Your task to perform on an android device: uninstall "Microsoft Authenticator" Image 0: 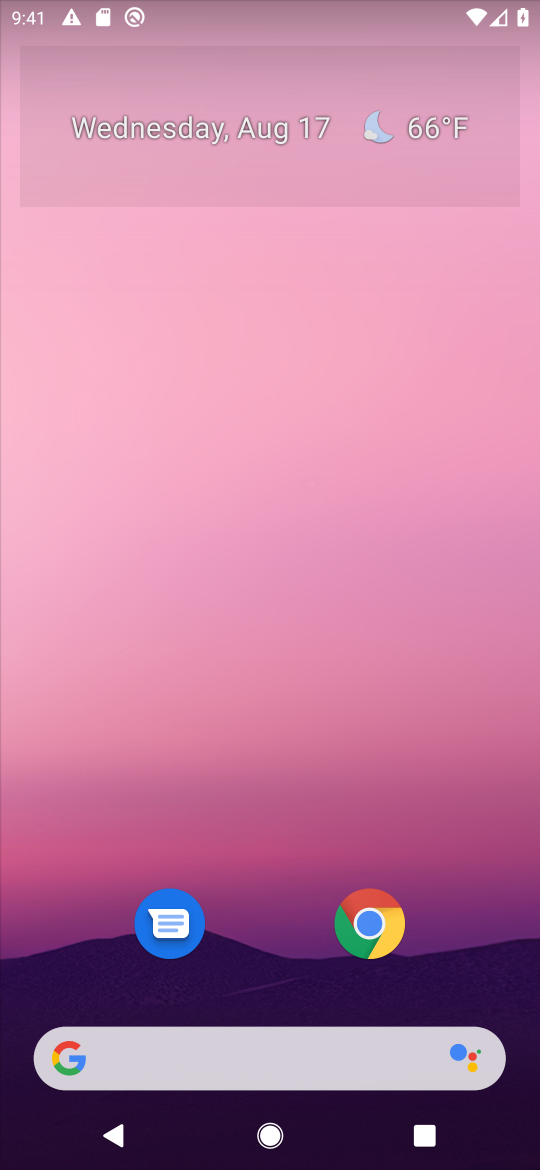
Step 0: drag from (471, 895) to (399, 173)
Your task to perform on an android device: uninstall "Microsoft Authenticator" Image 1: 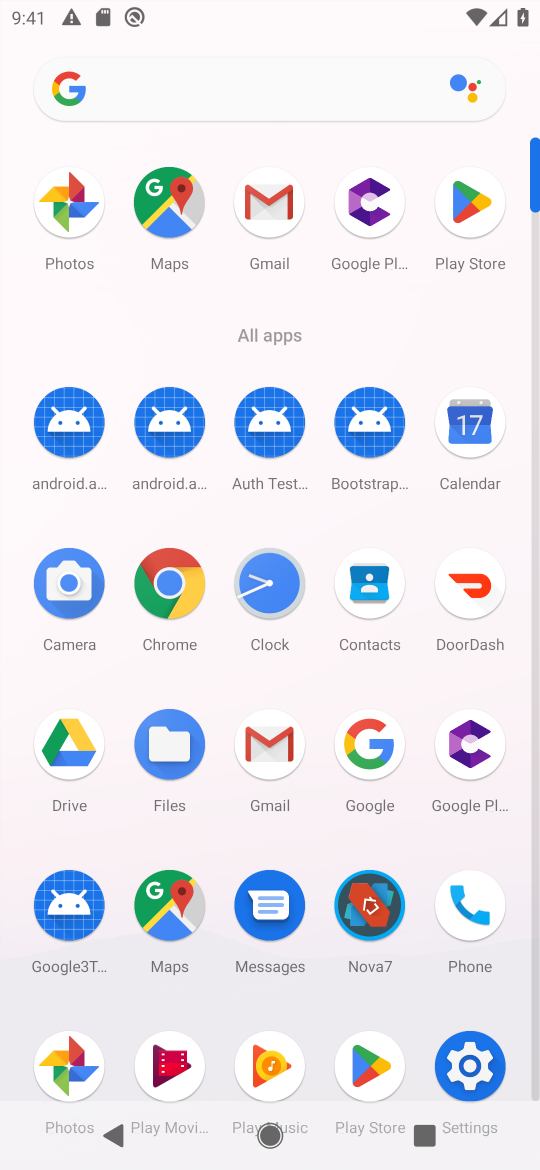
Step 1: click (470, 228)
Your task to perform on an android device: uninstall "Microsoft Authenticator" Image 2: 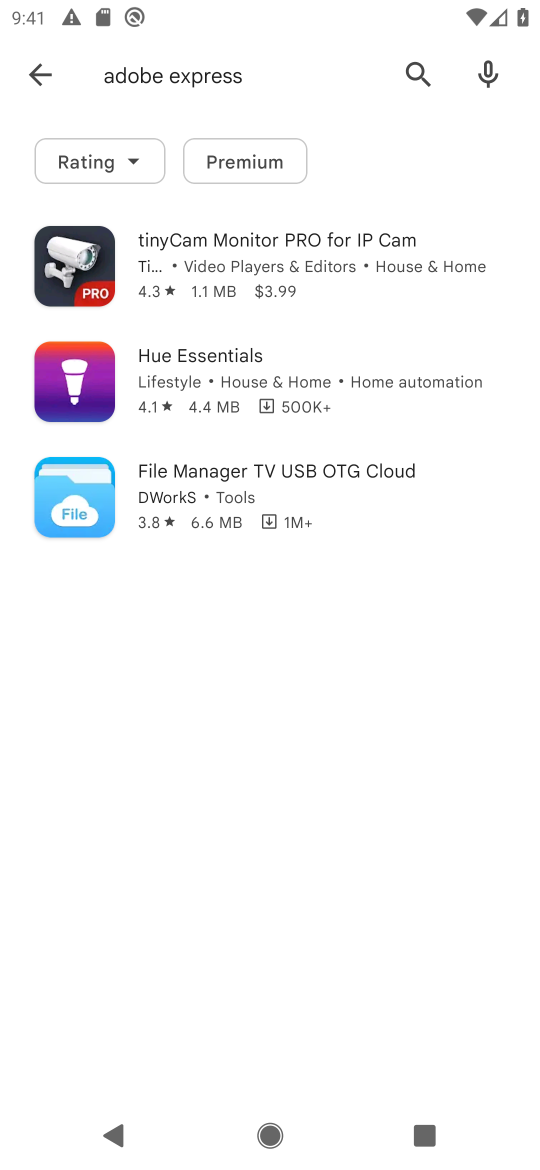
Step 2: click (42, 68)
Your task to perform on an android device: uninstall "Microsoft Authenticator" Image 3: 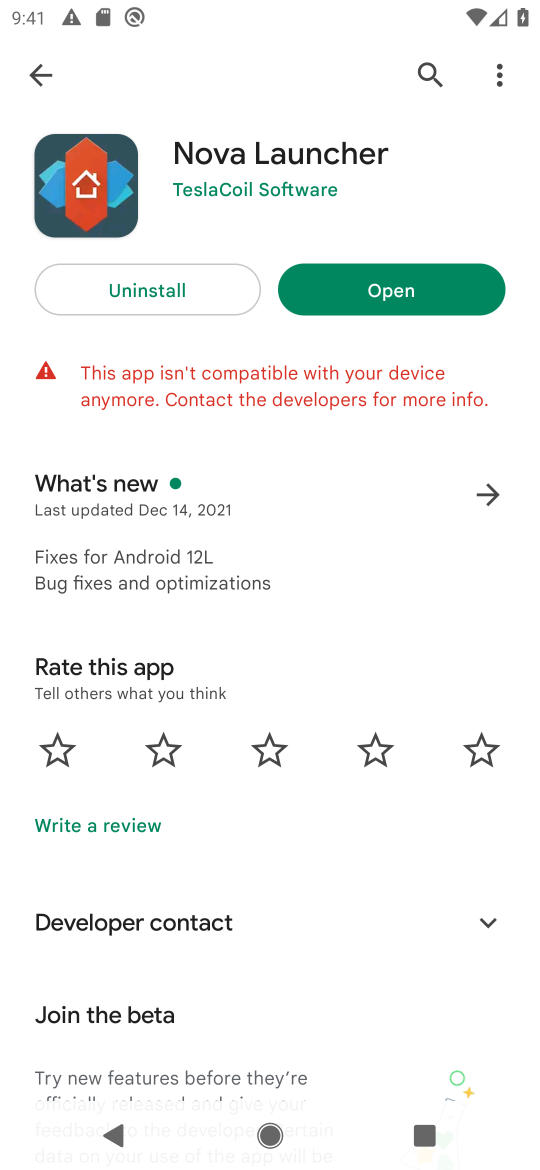
Step 3: click (45, 70)
Your task to perform on an android device: uninstall "Microsoft Authenticator" Image 4: 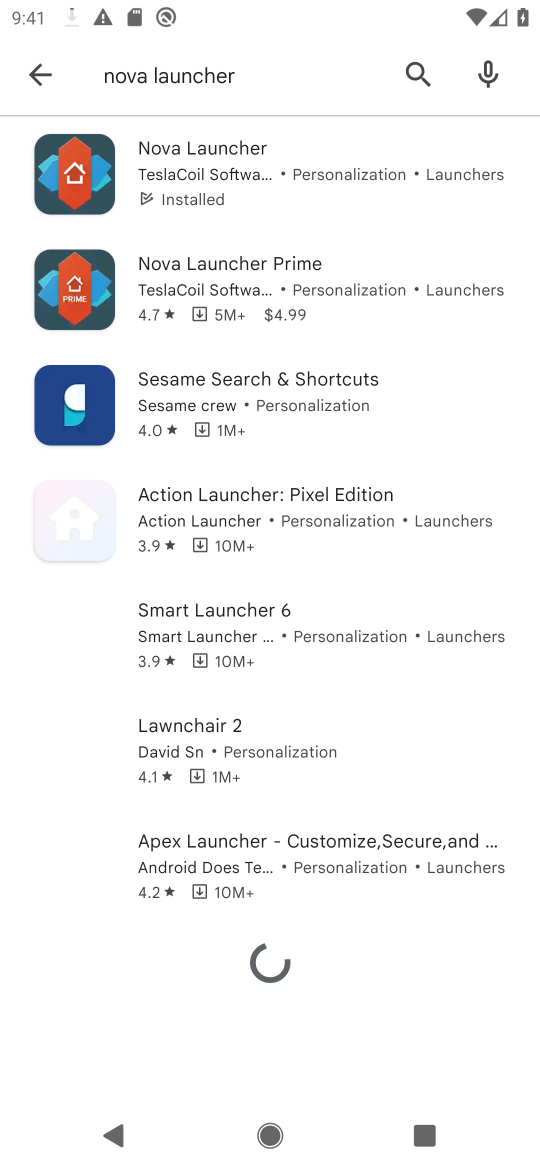
Step 4: click (45, 70)
Your task to perform on an android device: uninstall "Microsoft Authenticator" Image 5: 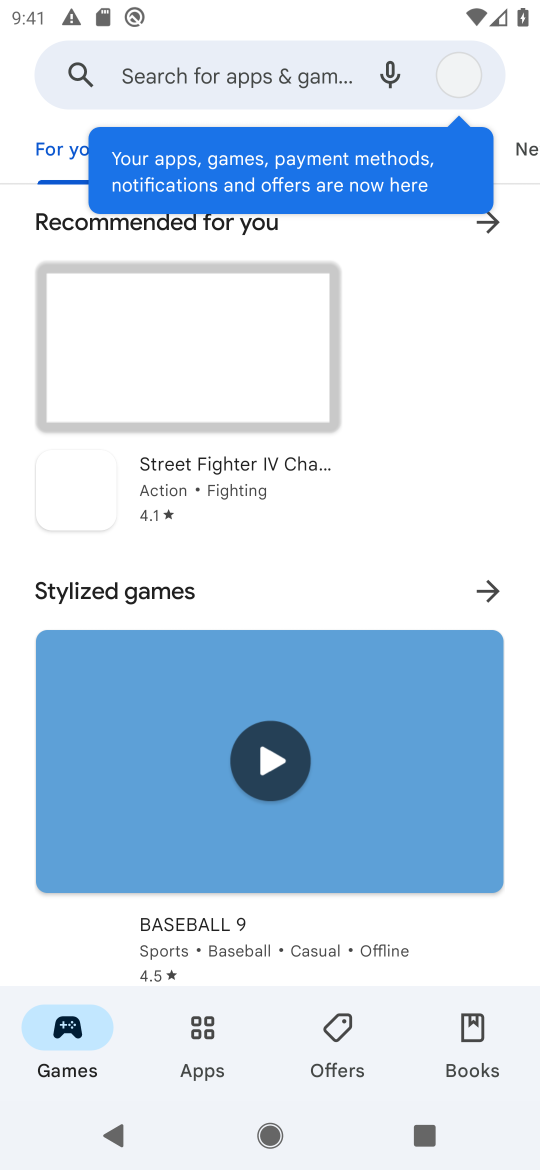
Step 5: click (260, 88)
Your task to perform on an android device: uninstall "Microsoft Authenticator" Image 6: 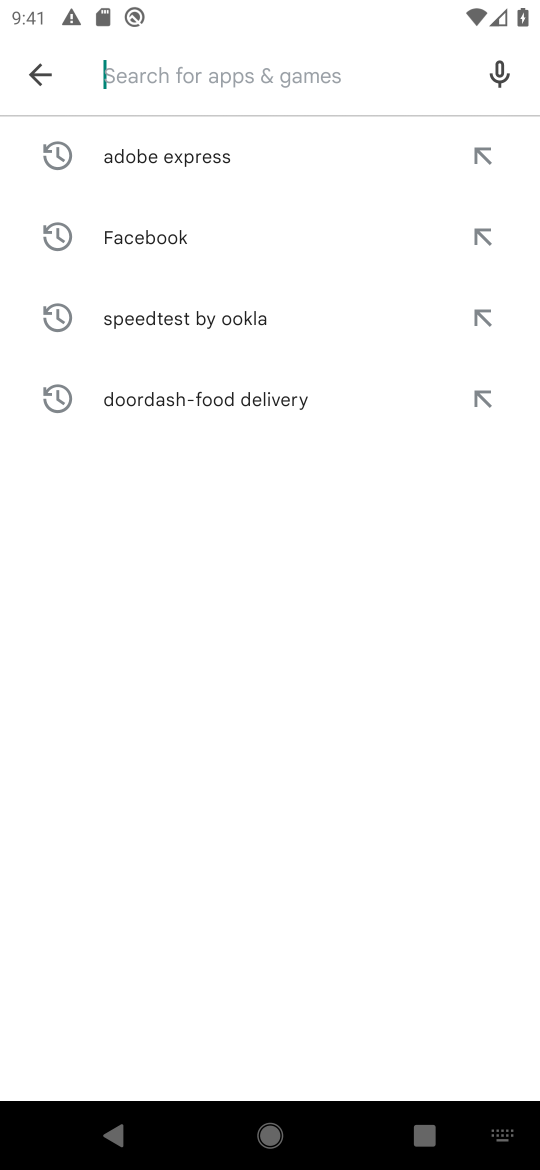
Step 6: type "microsoft authenticator"
Your task to perform on an android device: uninstall "Microsoft Authenticator" Image 7: 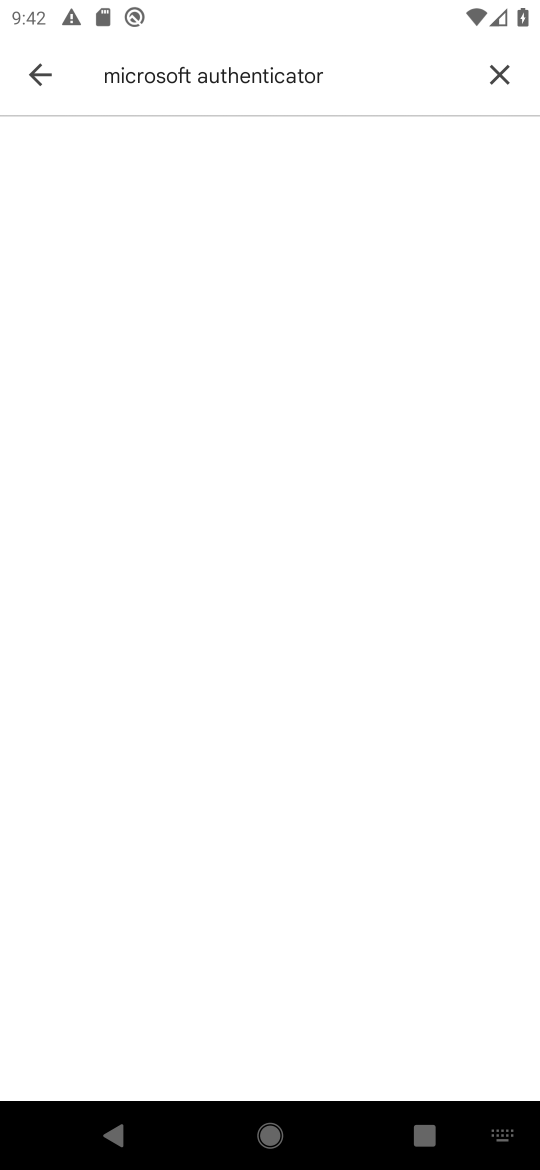
Step 7: press enter
Your task to perform on an android device: uninstall "Microsoft Authenticator" Image 8: 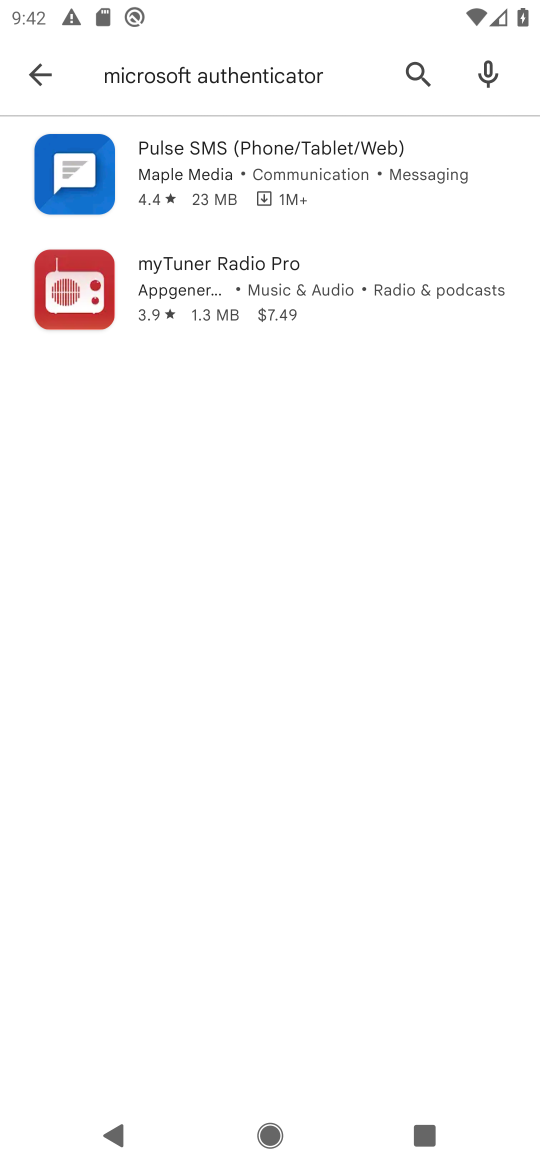
Step 8: task complete